Your task to perform on an android device: change the clock style Image 0: 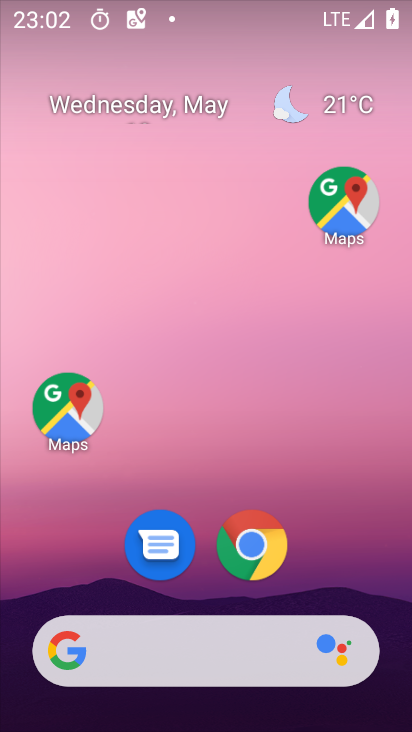
Step 0: drag from (344, 570) to (244, 84)
Your task to perform on an android device: change the clock style Image 1: 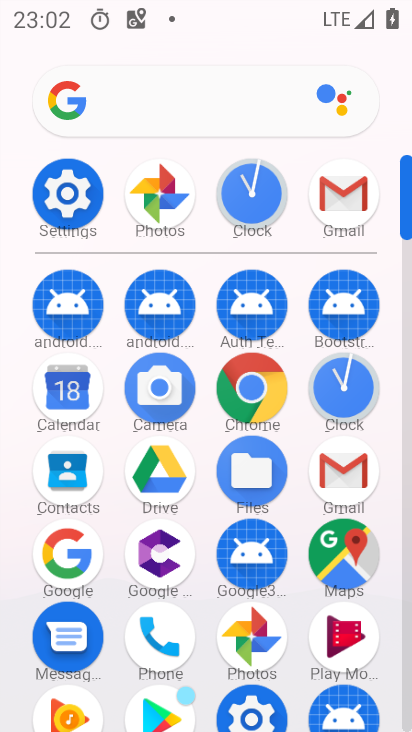
Step 1: click (250, 206)
Your task to perform on an android device: change the clock style Image 2: 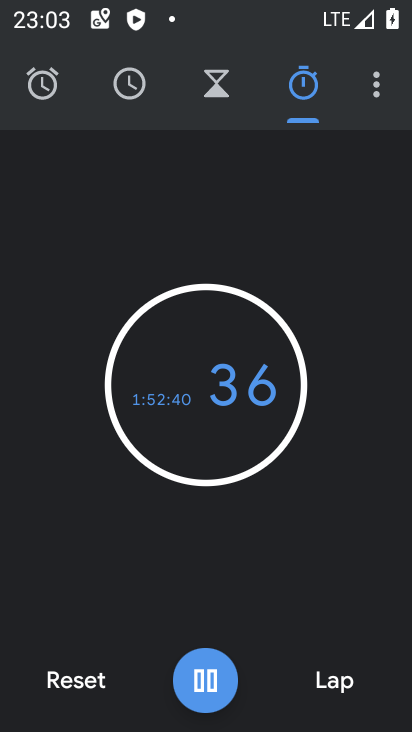
Step 2: click (377, 80)
Your task to perform on an android device: change the clock style Image 3: 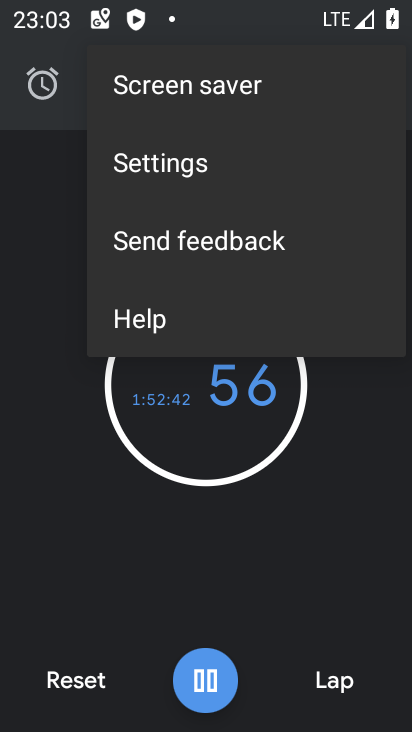
Step 3: click (273, 169)
Your task to perform on an android device: change the clock style Image 4: 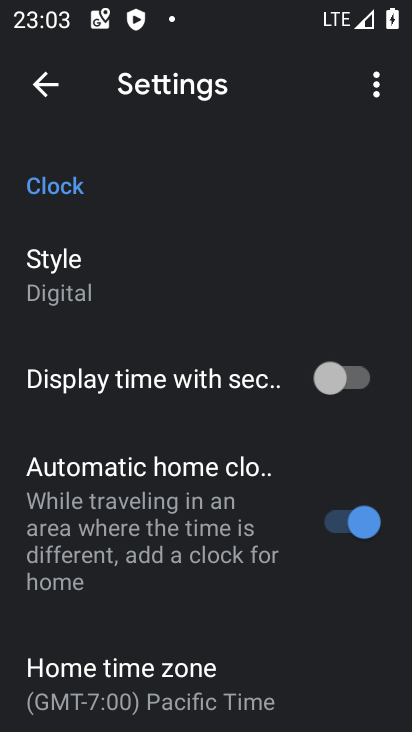
Step 4: click (91, 289)
Your task to perform on an android device: change the clock style Image 5: 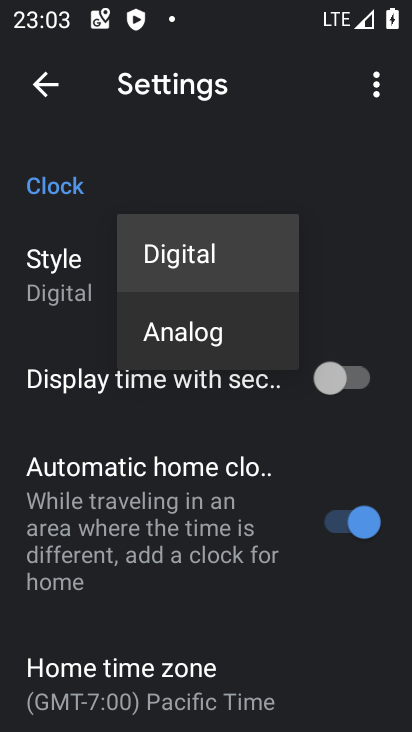
Step 5: click (158, 329)
Your task to perform on an android device: change the clock style Image 6: 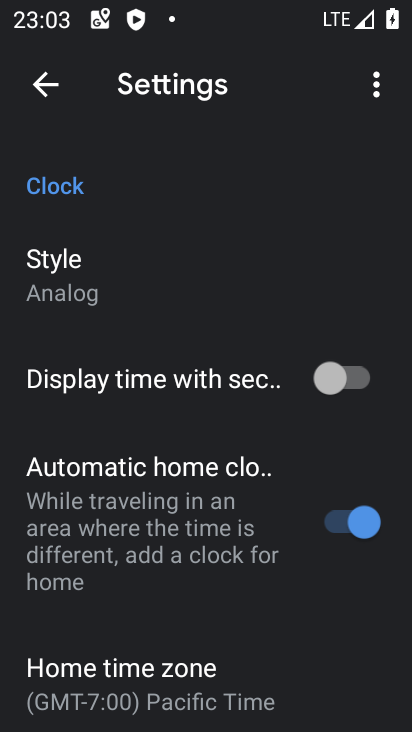
Step 6: task complete